Your task to perform on an android device: Open the stopwatch Image 0: 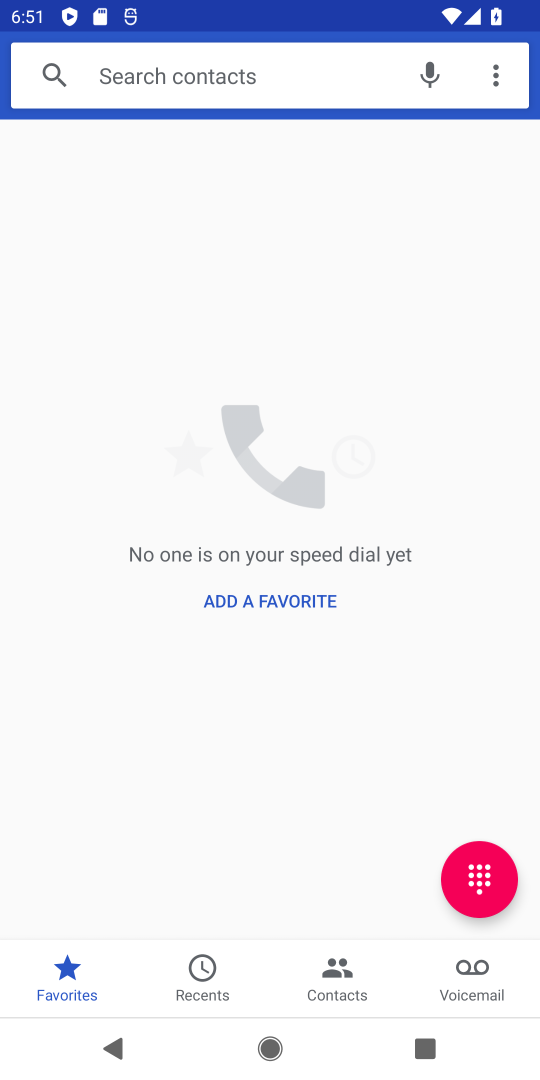
Step 0: press home button
Your task to perform on an android device: Open the stopwatch Image 1: 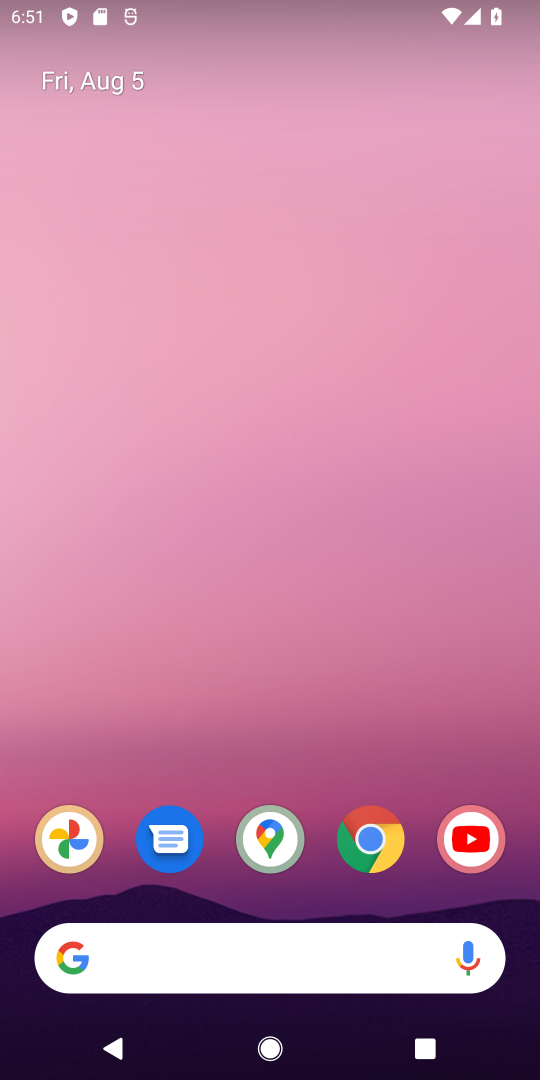
Step 1: drag from (324, 897) to (332, 279)
Your task to perform on an android device: Open the stopwatch Image 2: 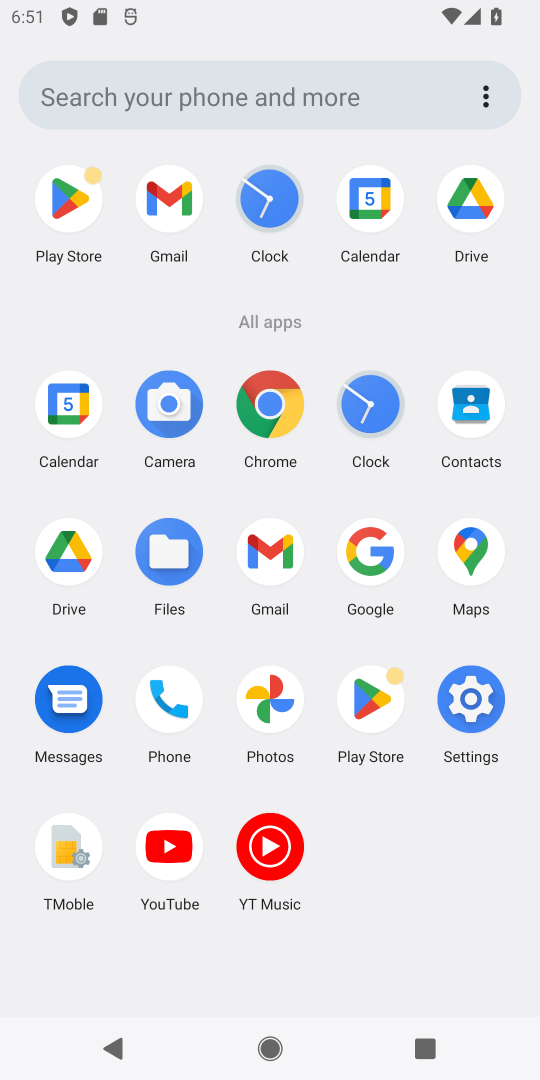
Step 2: click (378, 404)
Your task to perform on an android device: Open the stopwatch Image 3: 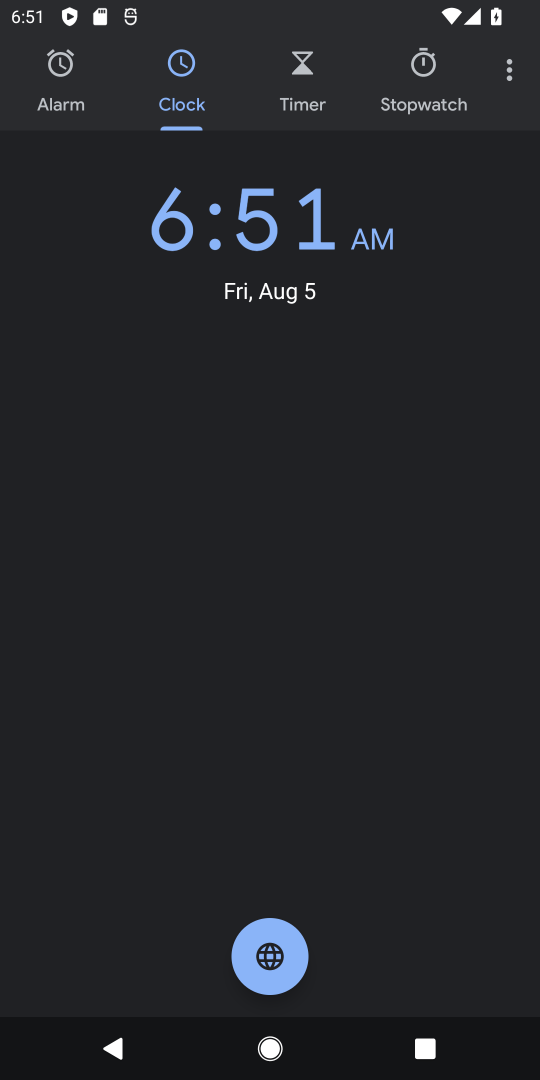
Step 3: click (414, 102)
Your task to perform on an android device: Open the stopwatch Image 4: 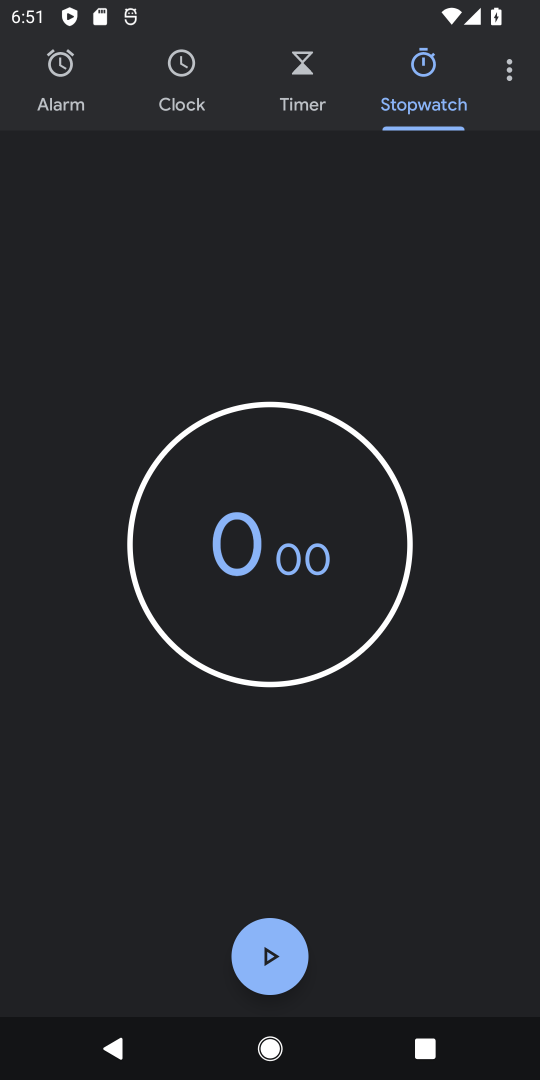
Step 4: task complete